Your task to perform on an android device: turn on bluetooth scan Image 0: 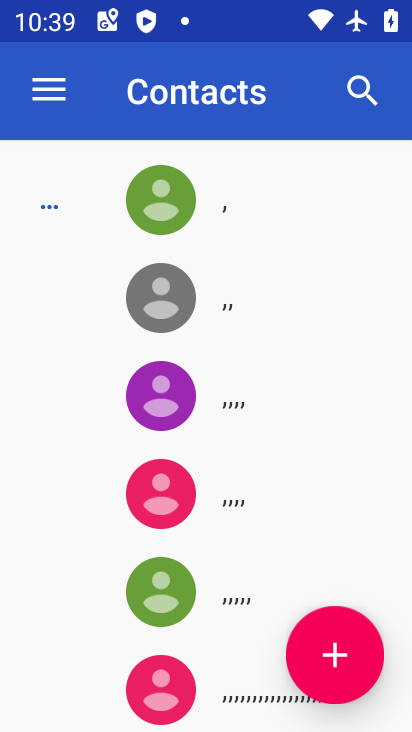
Step 0: press home button
Your task to perform on an android device: turn on bluetooth scan Image 1: 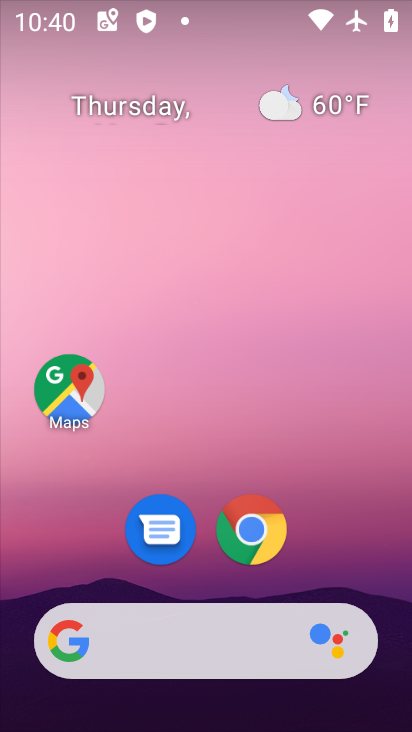
Step 1: drag from (397, 563) to (155, 143)
Your task to perform on an android device: turn on bluetooth scan Image 2: 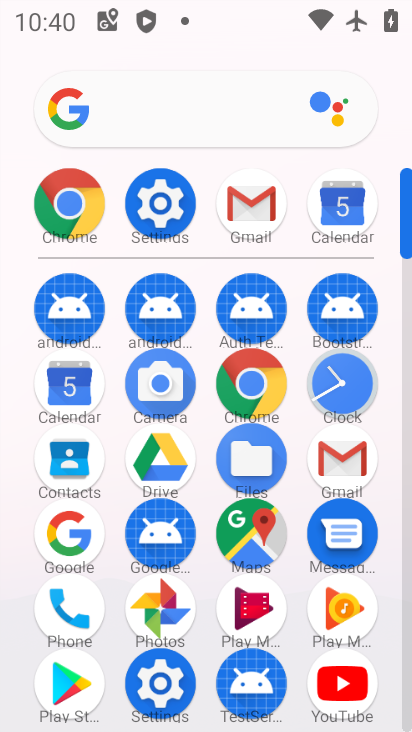
Step 2: click (164, 668)
Your task to perform on an android device: turn on bluetooth scan Image 3: 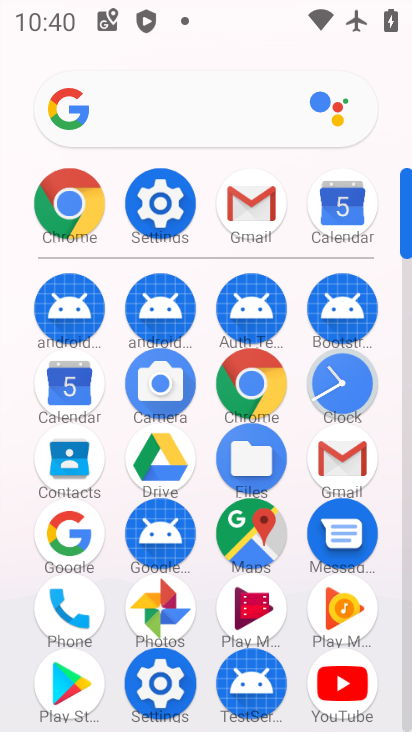
Step 3: click (164, 668)
Your task to perform on an android device: turn on bluetooth scan Image 4: 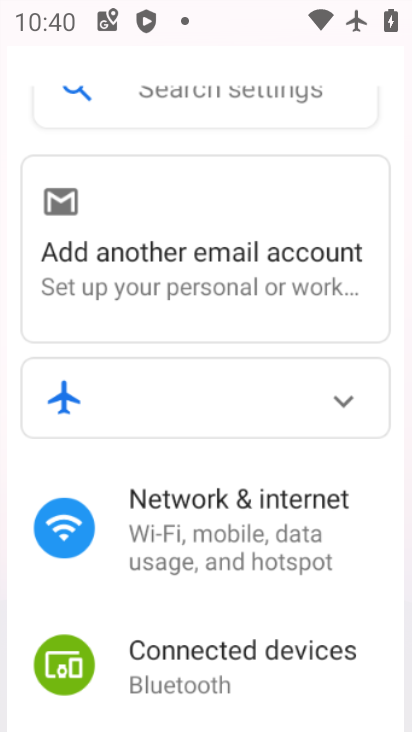
Step 4: click (164, 669)
Your task to perform on an android device: turn on bluetooth scan Image 5: 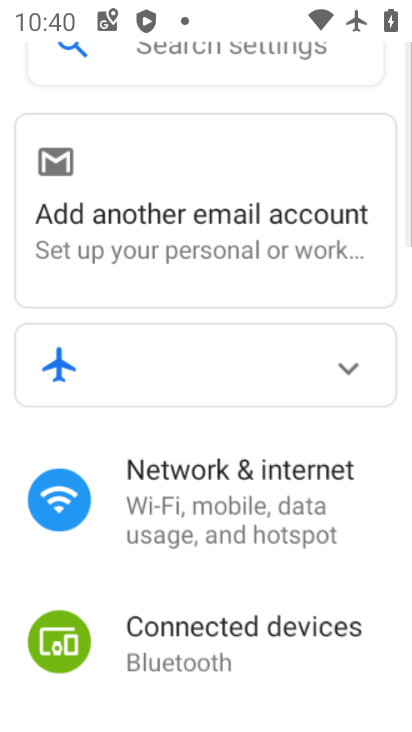
Step 5: click (165, 670)
Your task to perform on an android device: turn on bluetooth scan Image 6: 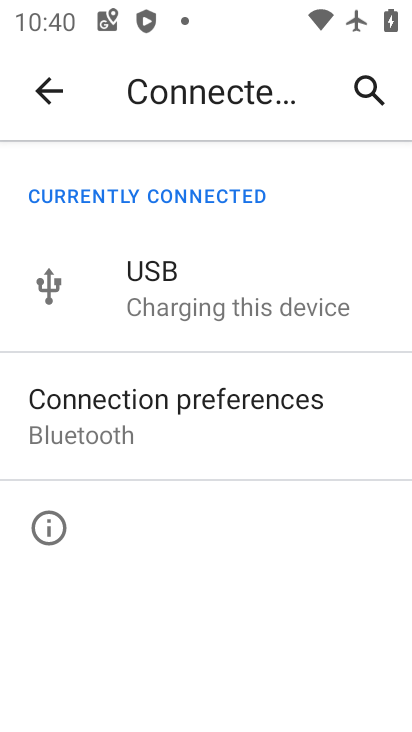
Step 6: click (46, 91)
Your task to perform on an android device: turn on bluetooth scan Image 7: 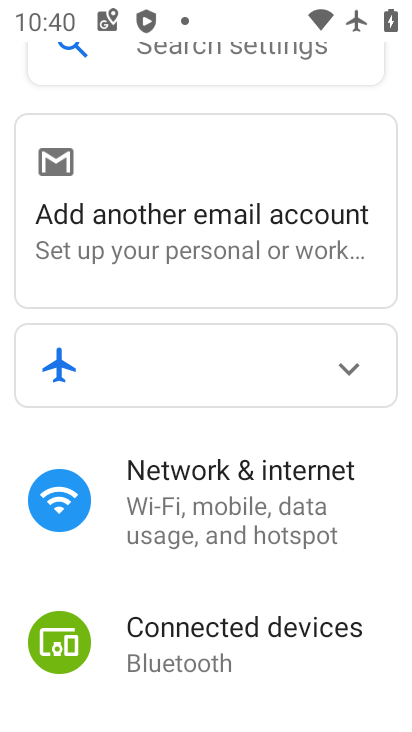
Step 7: press home button
Your task to perform on an android device: turn on bluetooth scan Image 8: 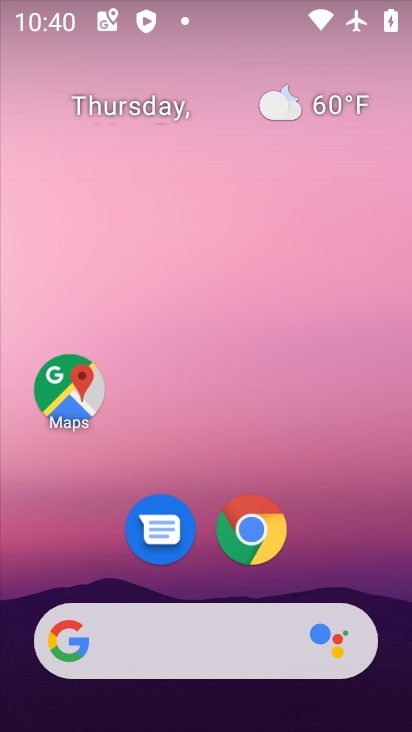
Step 8: drag from (374, 557) to (187, 15)
Your task to perform on an android device: turn on bluetooth scan Image 9: 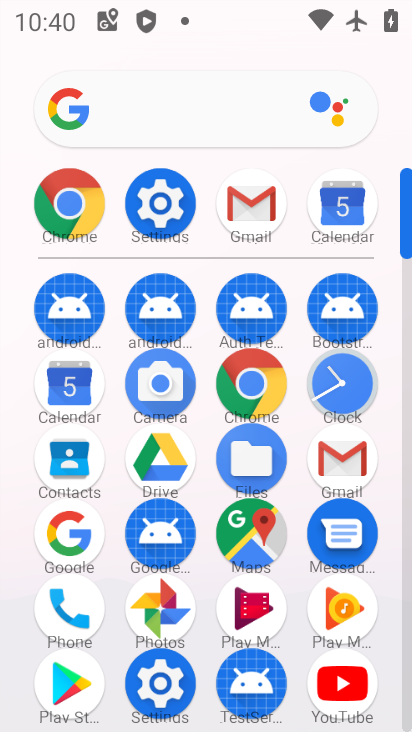
Step 9: click (158, 684)
Your task to perform on an android device: turn on bluetooth scan Image 10: 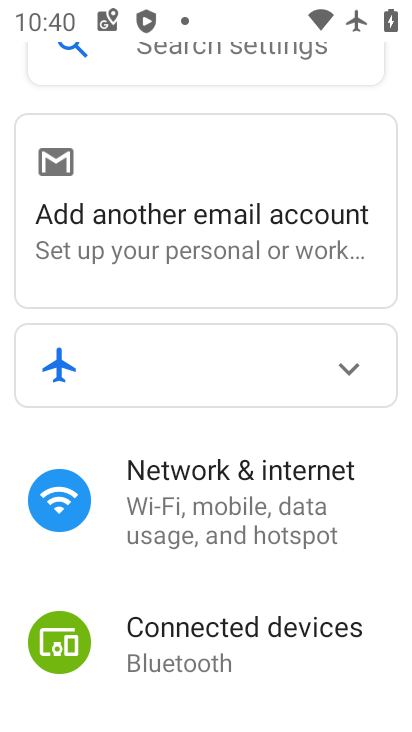
Step 10: drag from (268, 606) to (223, 209)
Your task to perform on an android device: turn on bluetooth scan Image 11: 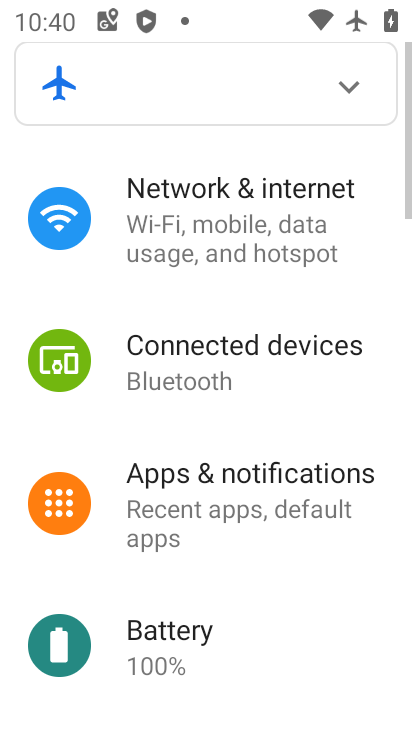
Step 11: drag from (243, 524) to (192, 109)
Your task to perform on an android device: turn on bluetooth scan Image 12: 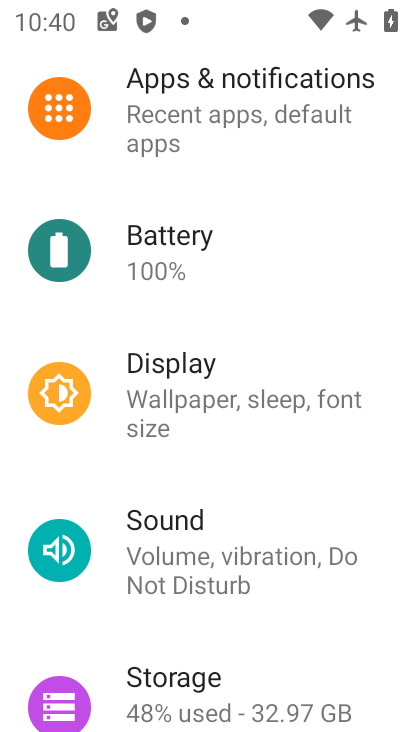
Step 12: drag from (192, 558) to (124, 107)
Your task to perform on an android device: turn on bluetooth scan Image 13: 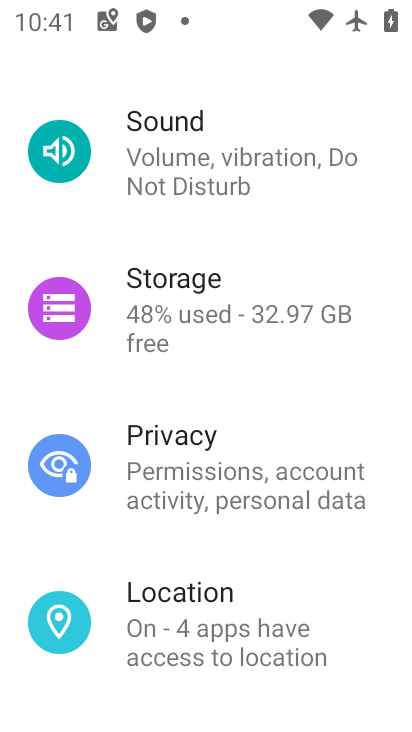
Step 13: click (186, 635)
Your task to perform on an android device: turn on bluetooth scan Image 14: 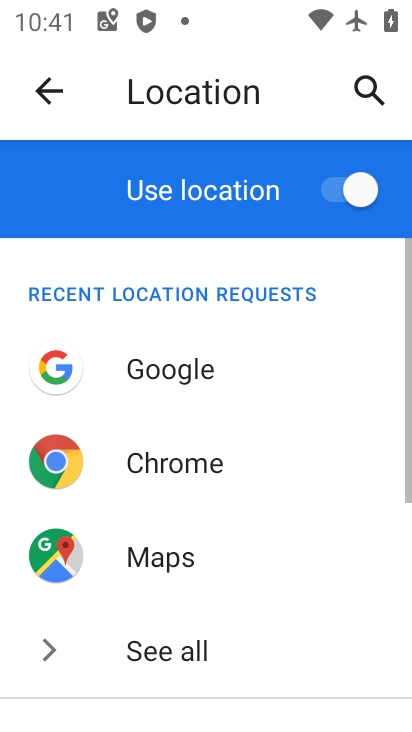
Step 14: drag from (185, 636) to (168, 65)
Your task to perform on an android device: turn on bluetooth scan Image 15: 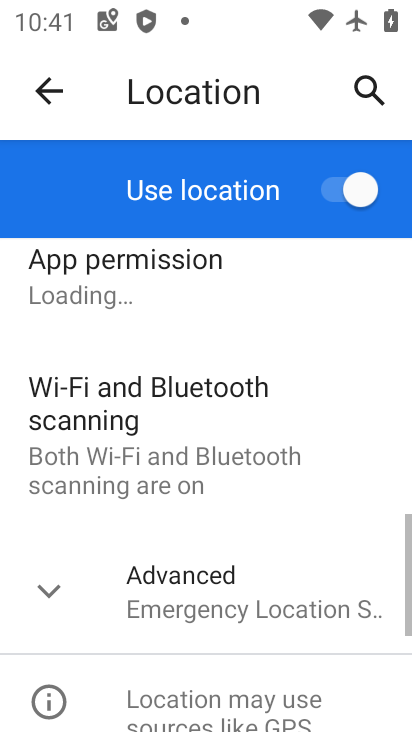
Step 15: drag from (260, 559) to (218, 26)
Your task to perform on an android device: turn on bluetooth scan Image 16: 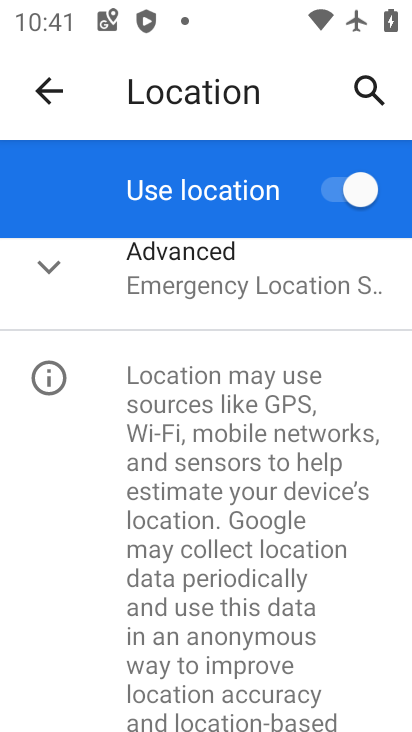
Step 16: drag from (228, 509) to (185, 58)
Your task to perform on an android device: turn on bluetooth scan Image 17: 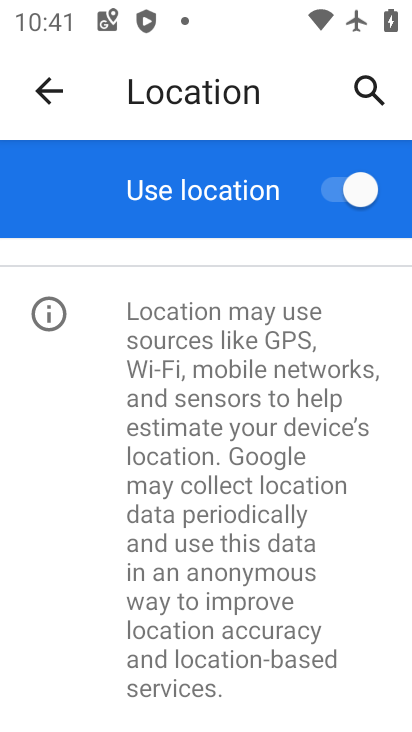
Step 17: click (254, 731)
Your task to perform on an android device: turn on bluetooth scan Image 18: 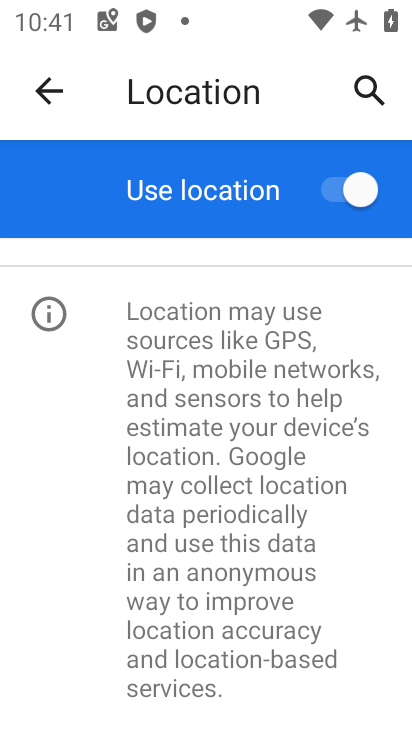
Step 18: drag from (208, 317) to (278, 557)
Your task to perform on an android device: turn on bluetooth scan Image 19: 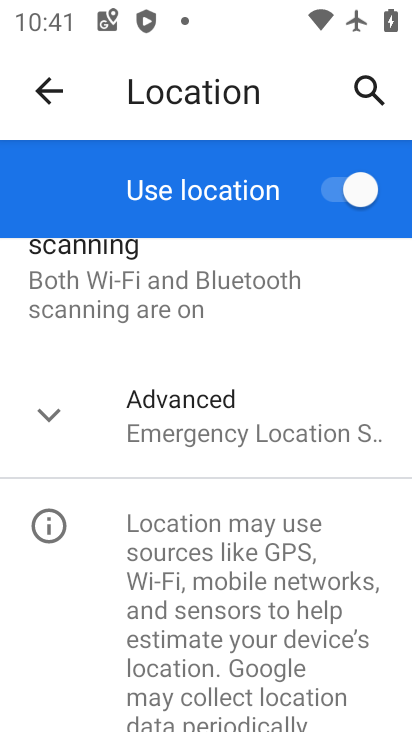
Step 19: click (109, 285)
Your task to perform on an android device: turn on bluetooth scan Image 20: 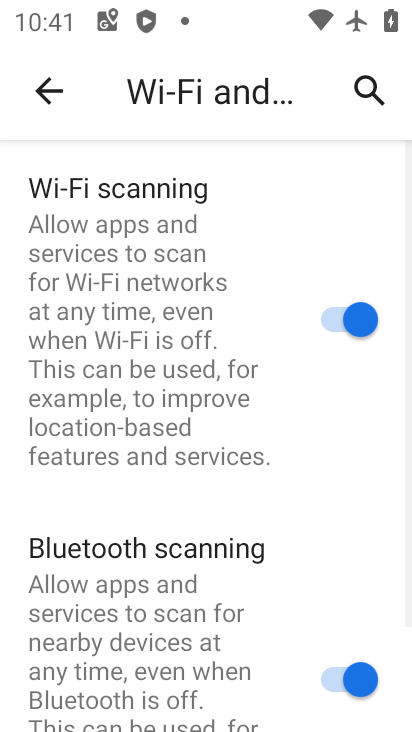
Step 20: task complete